Your task to perform on an android device: Go to Reddit.com Image 0: 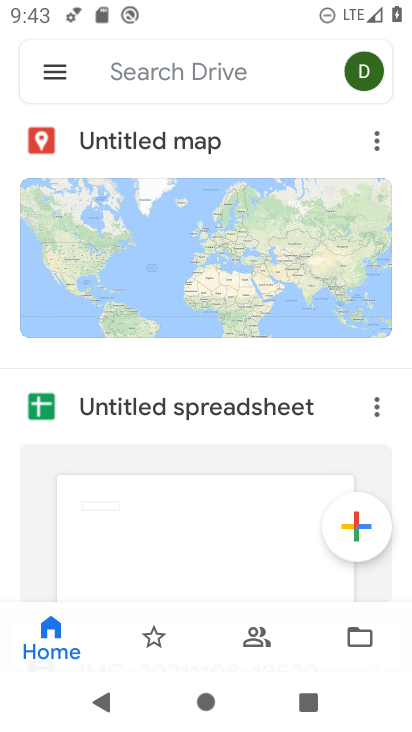
Step 0: press home button
Your task to perform on an android device: Go to Reddit.com Image 1: 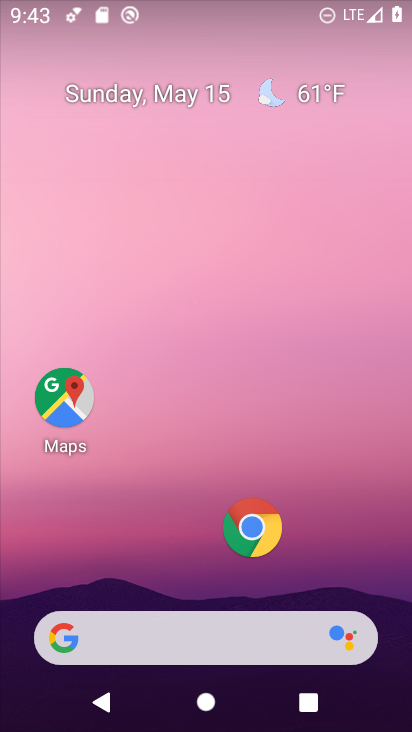
Step 1: click (247, 519)
Your task to perform on an android device: Go to Reddit.com Image 2: 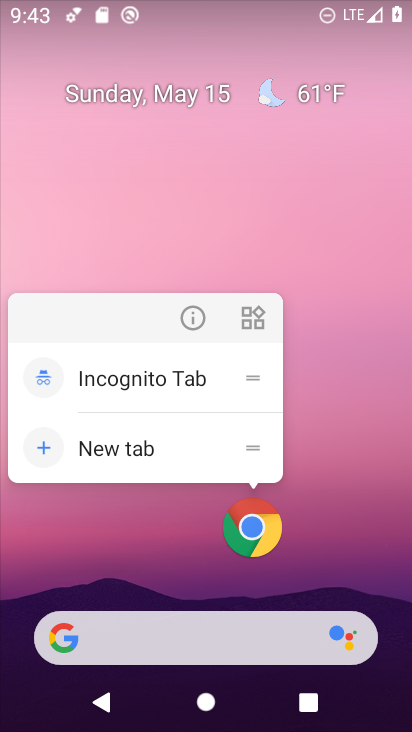
Step 2: click (250, 519)
Your task to perform on an android device: Go to Reddit.com Image 3: 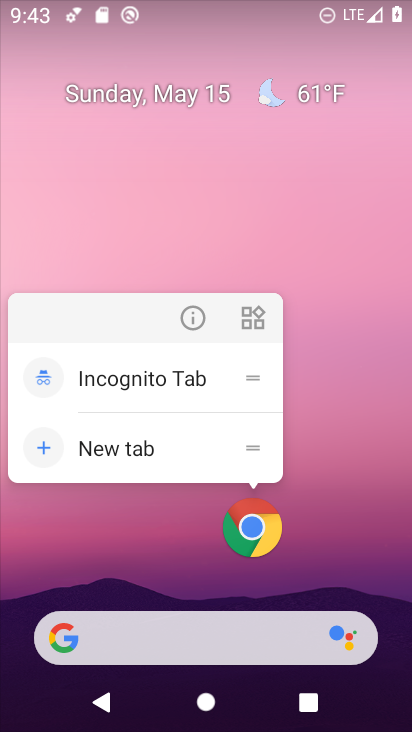
Step 3: click (248, 524)
Your task to perform on an android device: Go to Reddit.com Image 4: 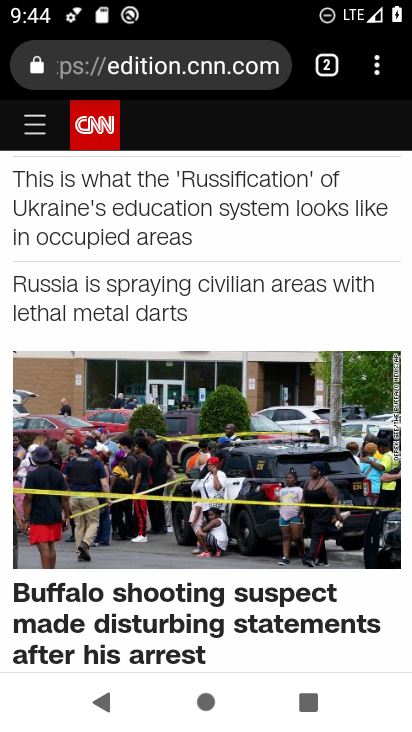
Step 4: click (327, 70)
Your task to perform on an android device: Go to Reddit.com Image 5: 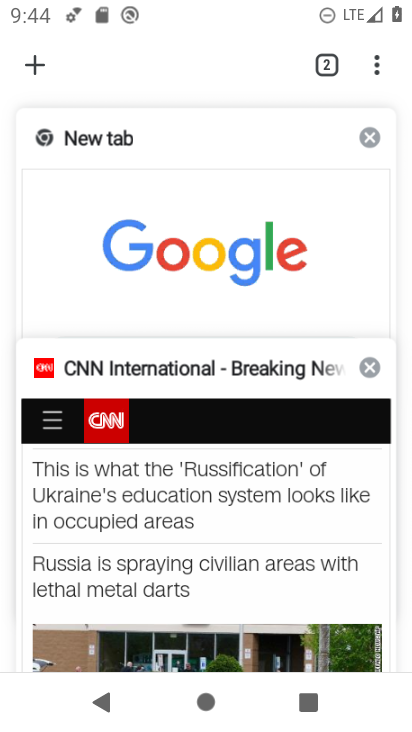
Step 5: click (369, 132)
Your task to perform on an android device: Go to Reddit.com Image 6: 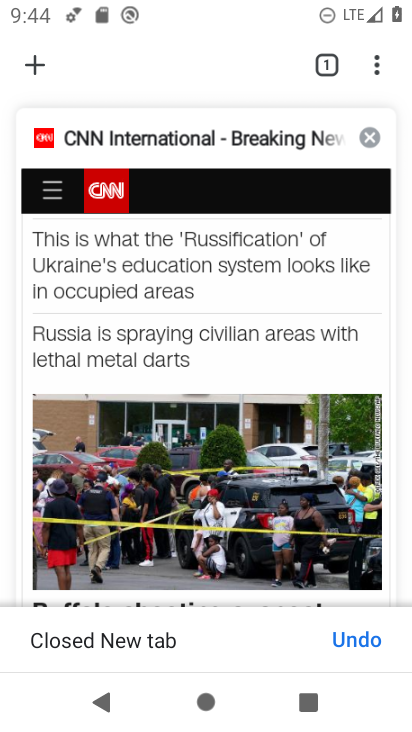
Step 6: click (369, 132)
Your task to perform on an android device: Go to Reddit.com Image 7: 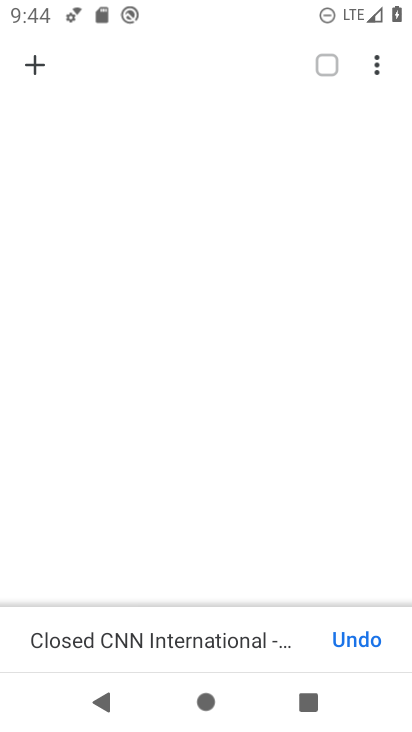
Step 7: click (44, 65)
Your task to perform on an android device: Go to Reddit.com Image 8: 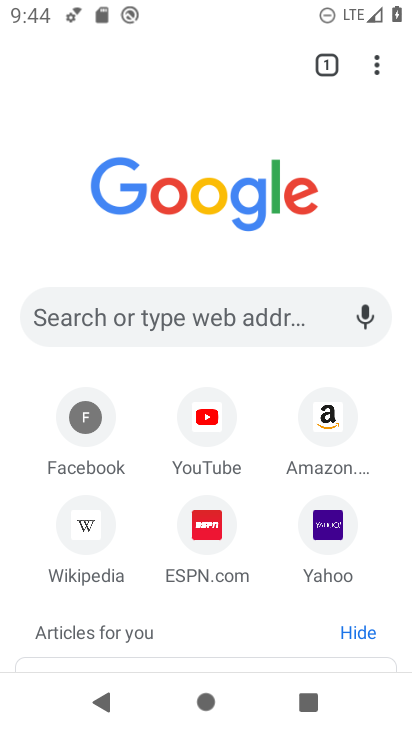
Step 8: click (165, 312)
Your task to perform on an android device: Go to Reddit.com Image 9: 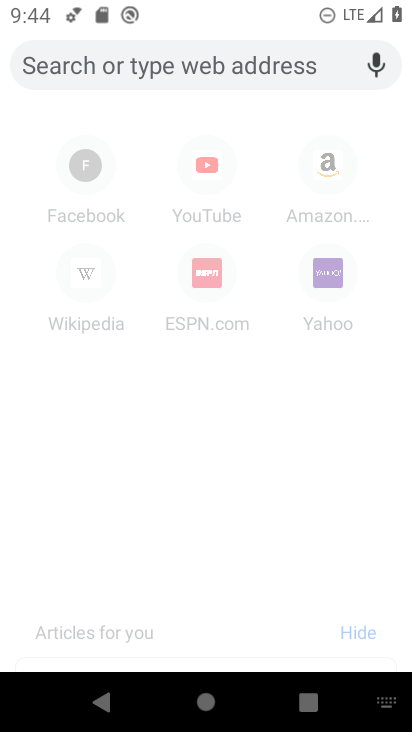
Step 9: type "reddit"
Your task to perform on an android device: Go to Reddit.com Image 10: 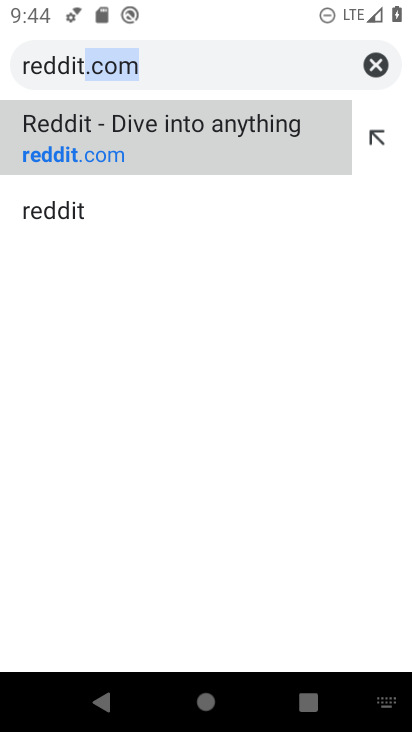
Step 10: click (135, 143)
Your task to perform on an android device: Go to Reddit.com Image 11: 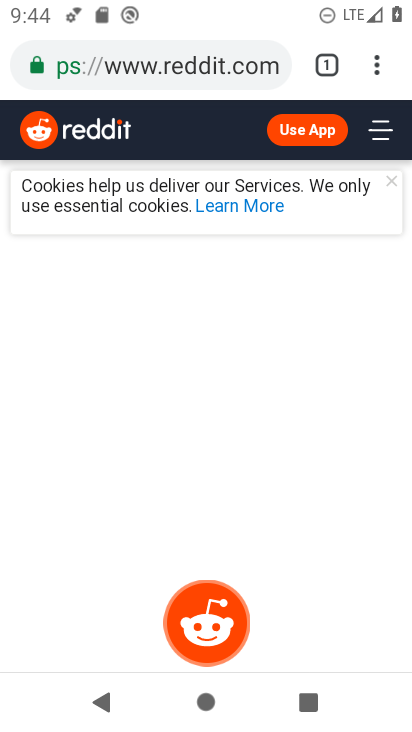
Step 11: drag from (281, 586) to (251, 212)
Your task to perform on an android device: Go to Reddit.com Image 12: 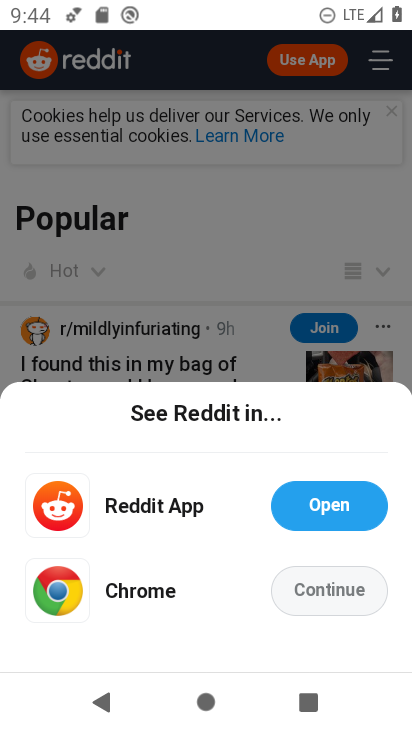
Step 12: click (331, 592)
Your task to perform on an android device: Go to Reddit.com Image 13: 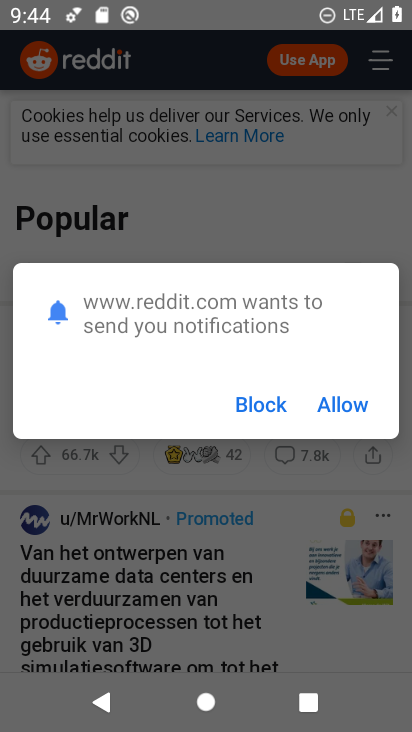
Step 13: click (254, 407)
Your task to perform on an android device: Go to Reddit.com Image 14: 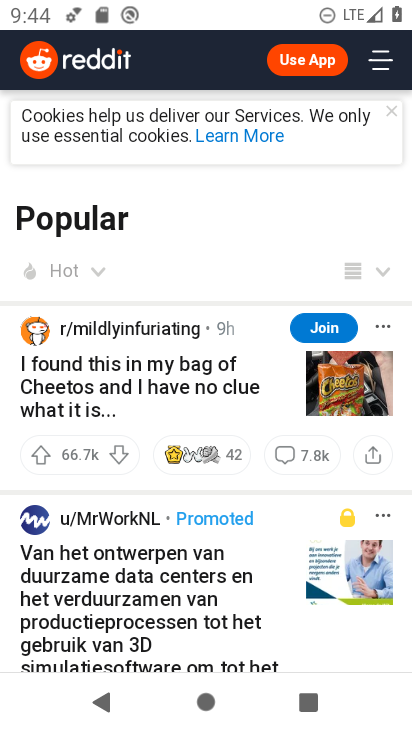
Step 14: task complete